Your task to perform on an android device: When is my next meeting? Image 0: 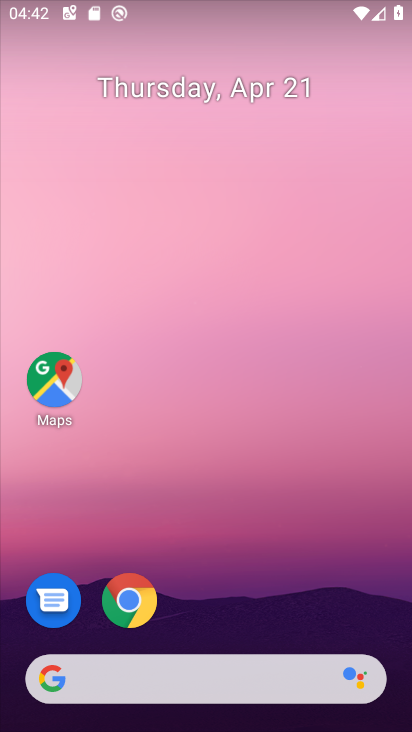
Step 0: drag from (335, 525) to (339, 0)
Your task to perform on an android device: When is my next meeting? Image 1: 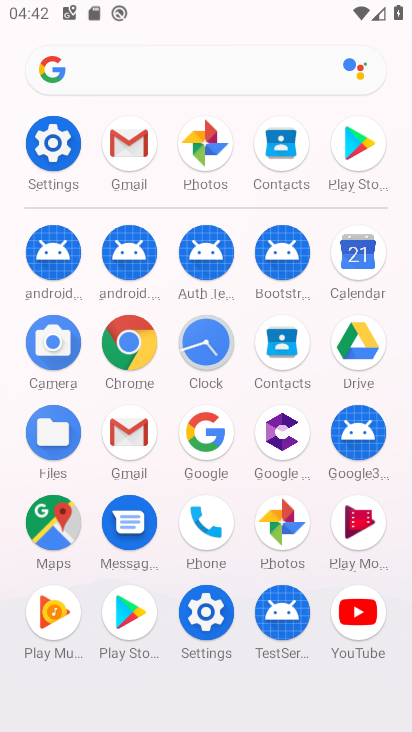
Step 1: click (361, 267)
Your task to perform on an android device: When is my next meeting? Image 2: 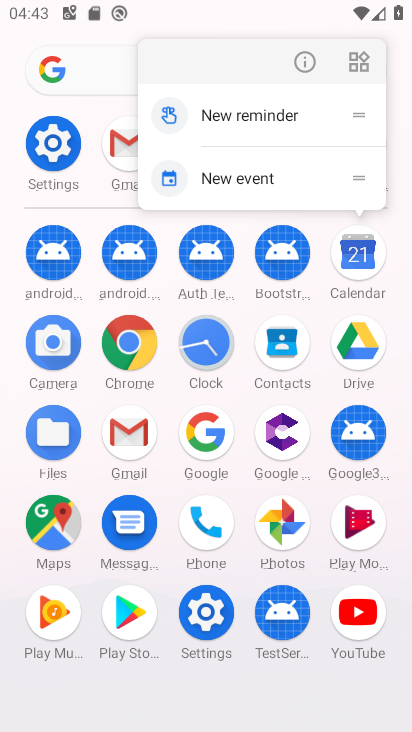
Step 2: click (358, 264)
Your task to perform on an android device: When is my next meeting? Image 3: 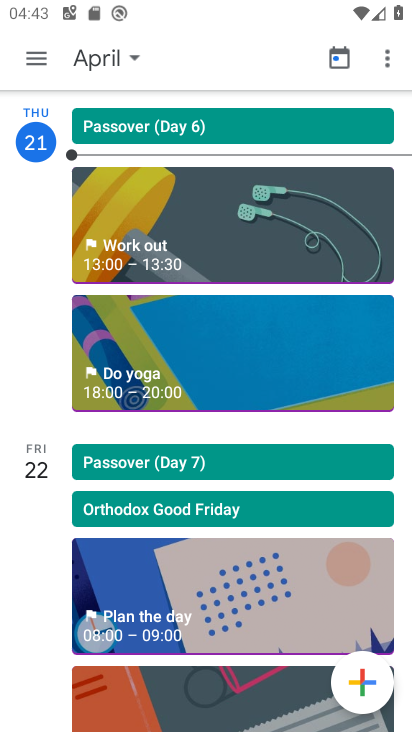
Step 3: click (37, 56)
Your task to perform on an android device: When is my next meeting? Image 4: 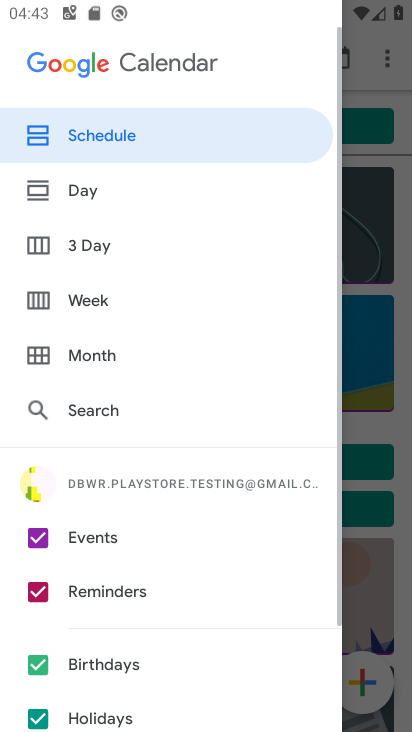
Step 4: click (37, 592)
Your task to perform on an android device: When is my next meeting? Image 5: 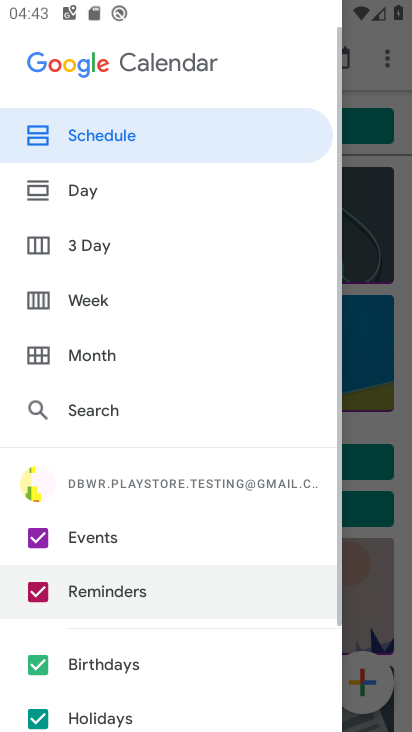
Step 5: click (34, 668)
Your task to perform on an android device: When is my next meeting? Image 6: 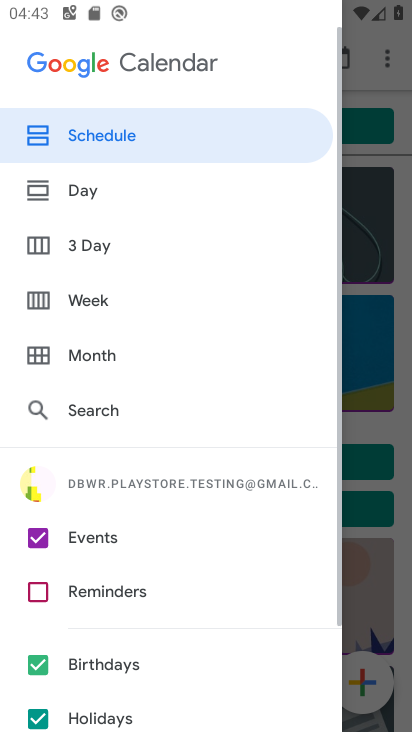
Step 6: drag from (173, 666) to (177, 445)
Your task to perform on an android device: When is my next meeting? Image 7: 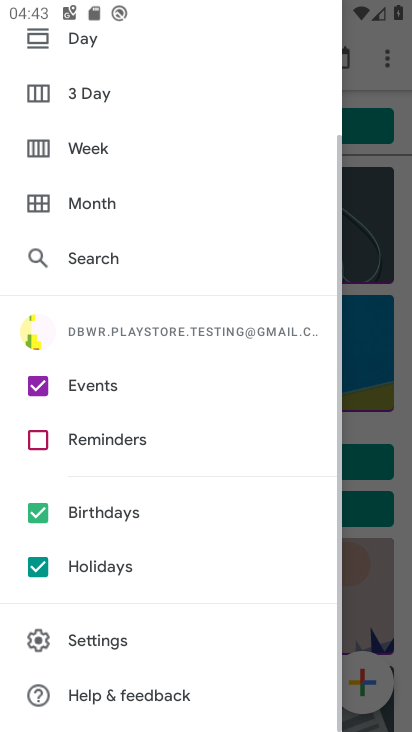
Step 7: click (36, 512)
Your task to perform on an android device: When is my next meeting? Image 8: 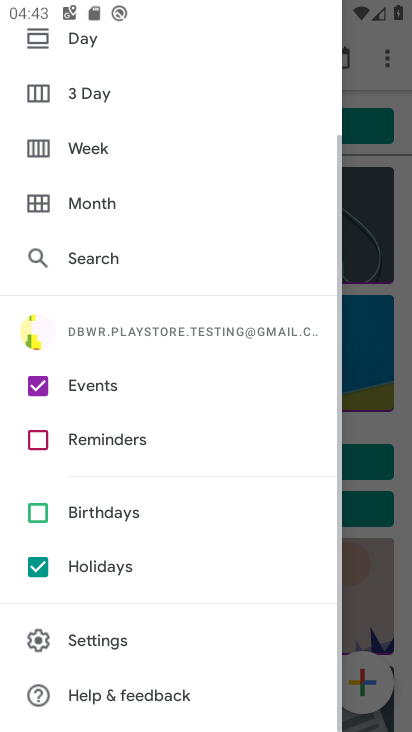
Step 8: click (43, 570)
Your task to perform on an android device: When is my next meeting? Image 9: 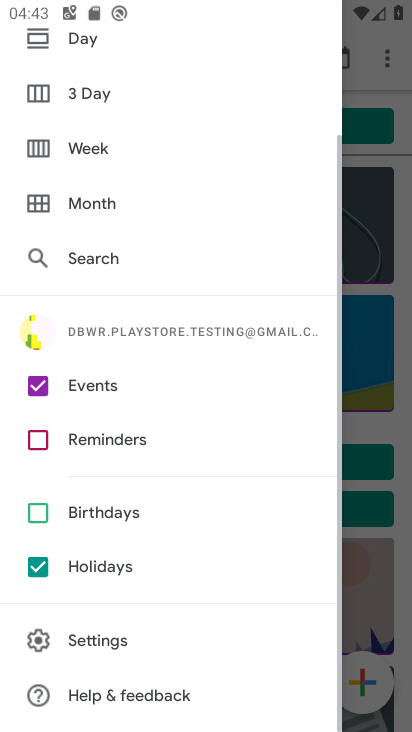
Step 9: click (41, 569)
Your task to perform on an android device: When is my next meeting? Image 10: 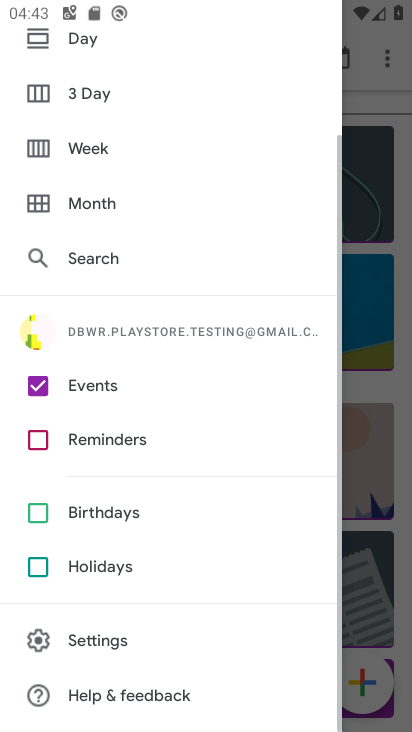
Step 10: drag from (163, 518) to (168, 333)
Your task to perform on an android device: When is my next meeting? Image 11: 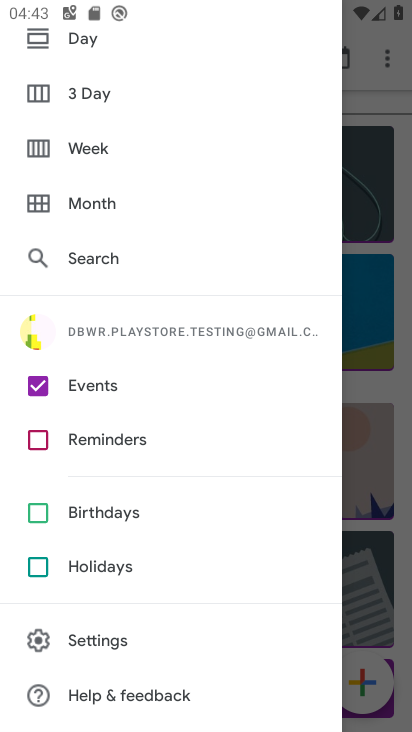
Step 11: drag from (170, 257) to (151, 566)
Your task to perform on an android device: When is my next meeting? Image 12: 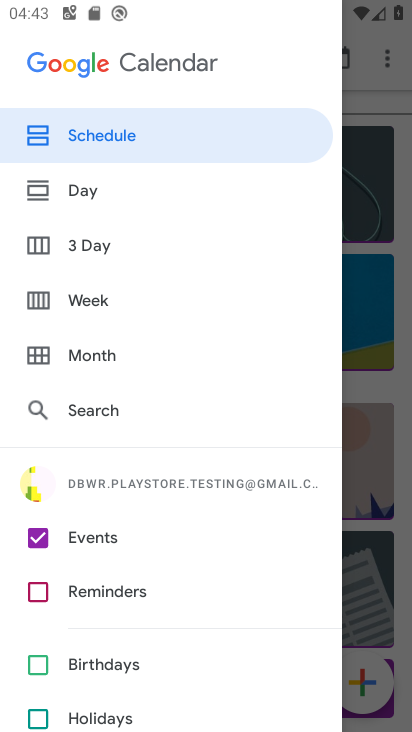
Step 12: click (94, 134)
Your task to perform on an android device: When is my next meeting? Image 13: 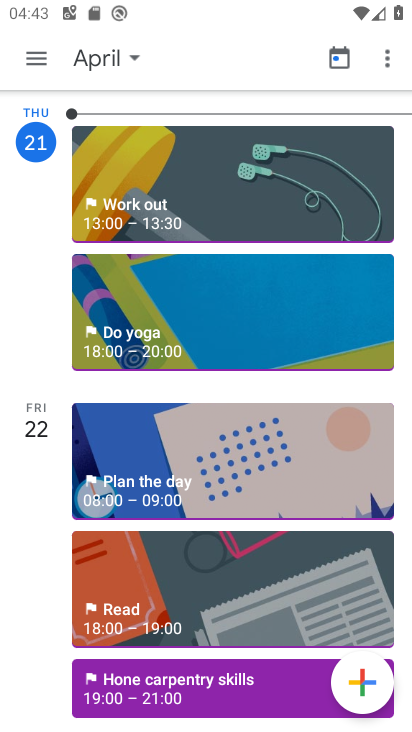
Step 13: drag from (149, 565) to (162, 271)
Your task to perform on an android device: When is my next meeting? Image 14: 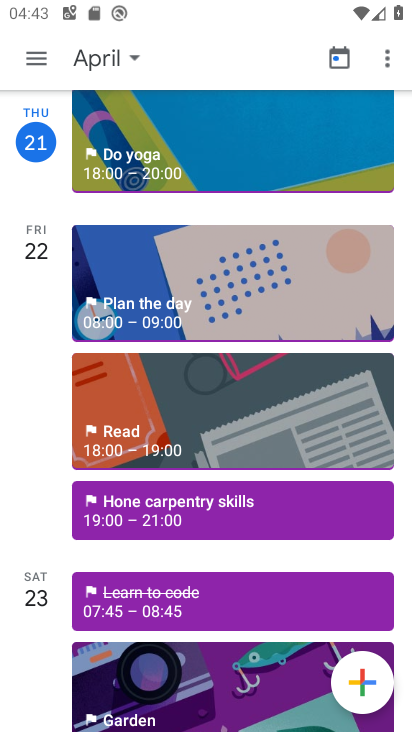
Step 14: click (166, 500)
Your task to perform on an android device: When is my next meeting? Image 15: 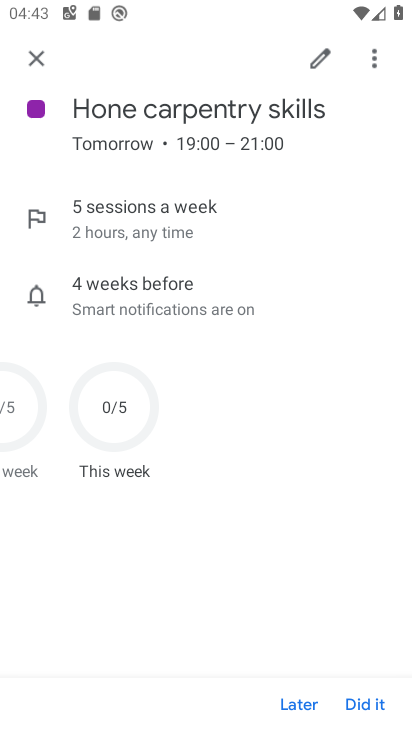
Step 15: task complete